Your task to perform on an android device: Open calendar and show me the third week of next month Image 0: 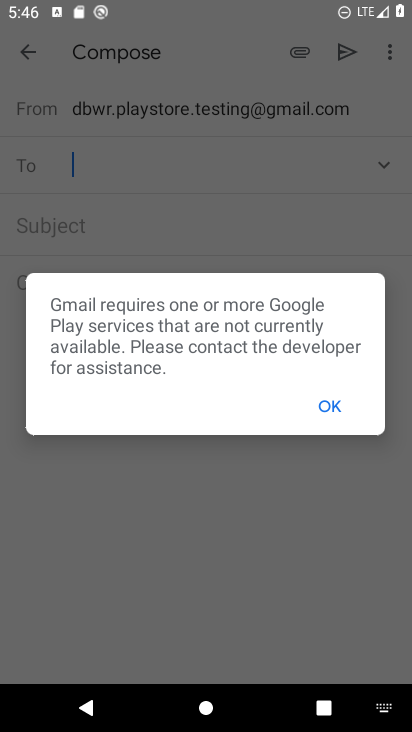
Step 0: press home button
Your task to perform on an android device: Open calendar and show me the third week of next month Image 1: 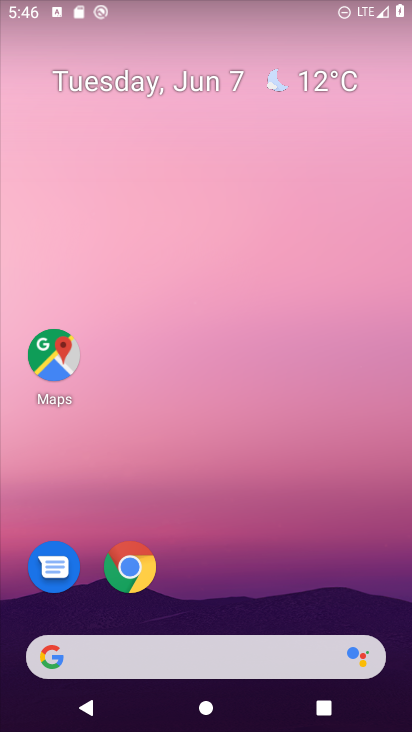
Step 1: drag from (298, 657) to (267, 22)
Your task to perform on an android device: Open calendar and show me the third week of next month Image 2: 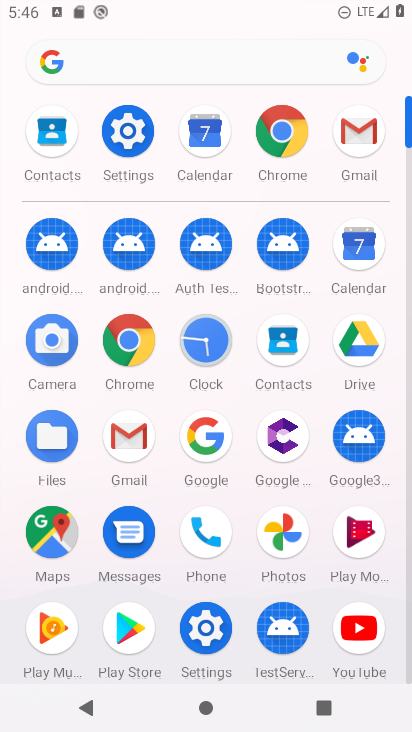
Step 2: click (351, 242)
Your task to perform on an android device: Open calendar and show me the third week of next month Image 3: 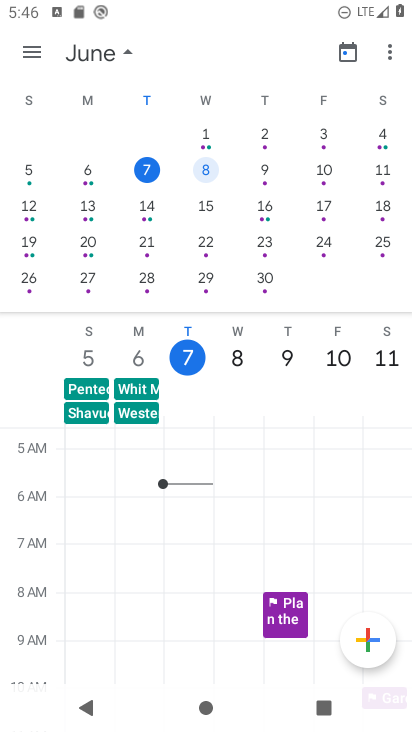
Step 3: drag from (381, 217) to (87, 233)
Your task to perform on an android device: Open calendar and show me the third week of next month Image 4: 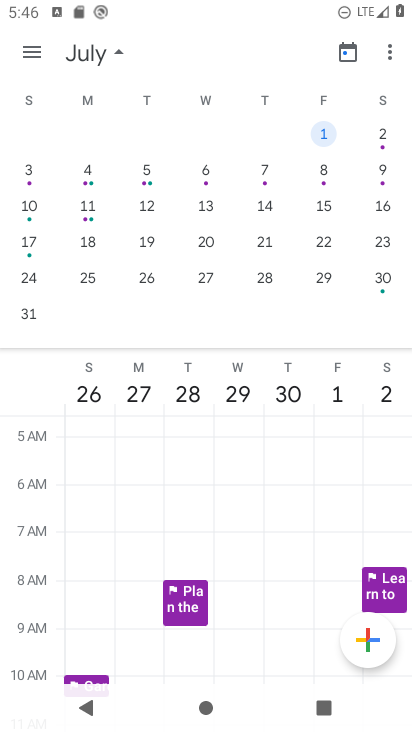
Step 4: click (207, 208)
Your task to perform on an android device: Open calendar and show me the third week of next month Image 5: 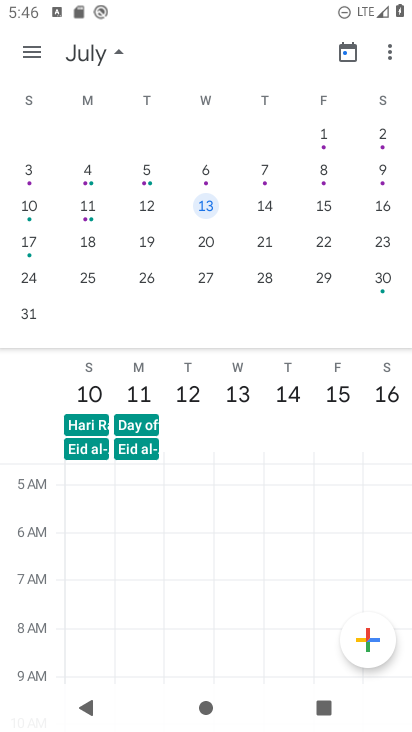
Step 5: task complete